Your task to perform on an android device: Find coffee shops on Maps Image 0: 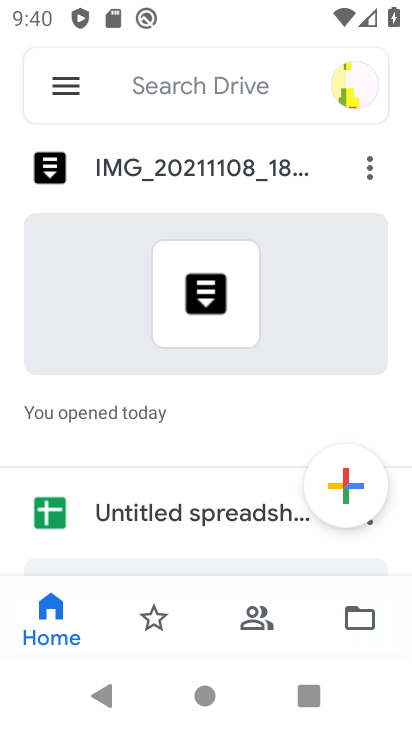
Step 0: press home button
Your task to perform on an android device: Find coffee shops on Maps Image 1: 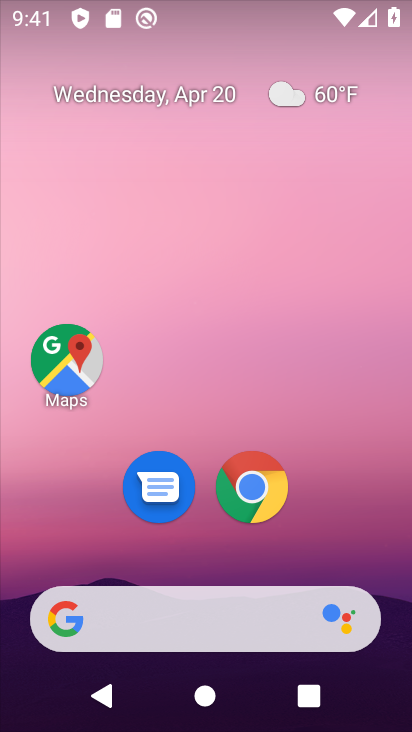
Step 1: click (50, 353)
Your task to perform on an android device: Find coffee shops on Maps Image 2: 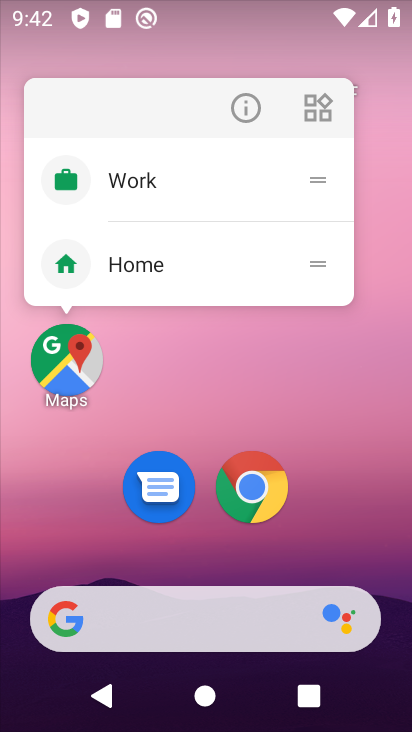
Step 2: click (234, 107)
Your task to perform on an android device: Find coffee shops on Maps Image 3: 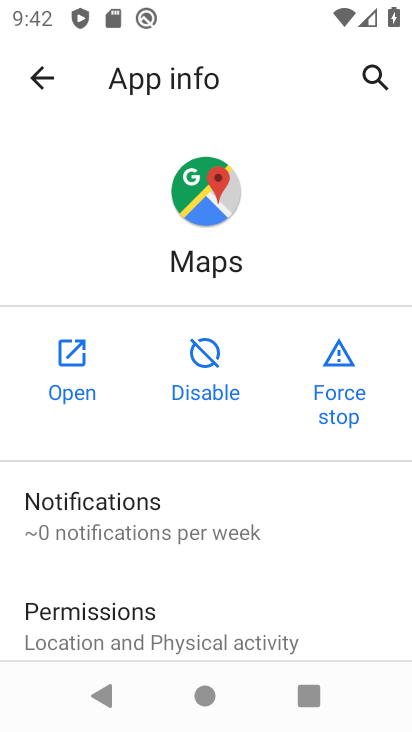
Step 3: click (25, 209)
Your task to perform on an android device: Find coffee shops on Maps Image 4: 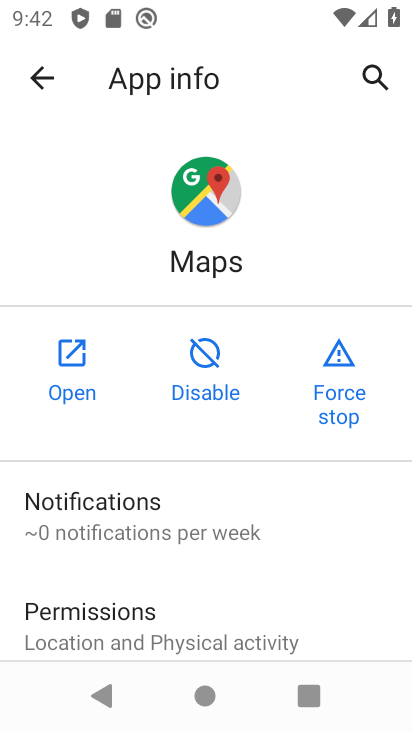
Step 4: click (60, 348)
Your task to perform on an android device: Find coffee shops on Maps Image 5: 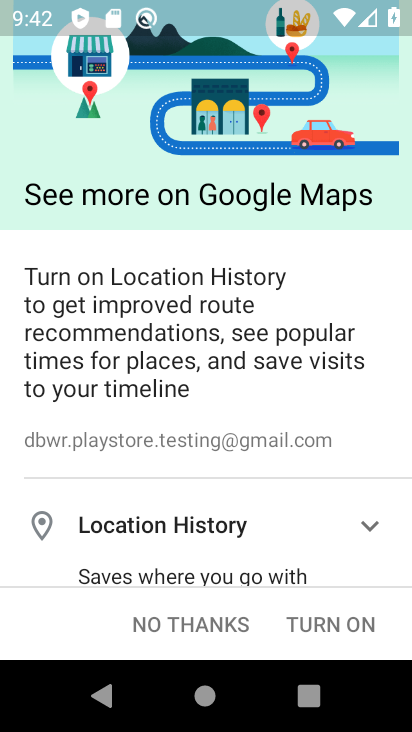
Step 5: click (207, 643)
Your task to perform on an android device: Find coffee shops on Maps Image 6: 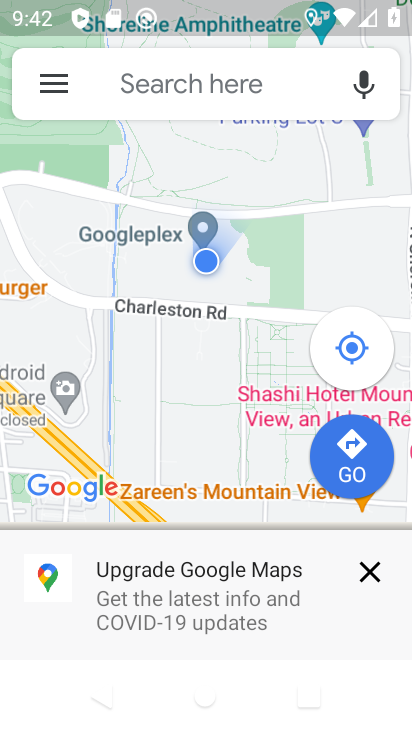
Step 6: click (166, 66)
Your task to perform on an android device: Find coffee shops on Maps Image 7: 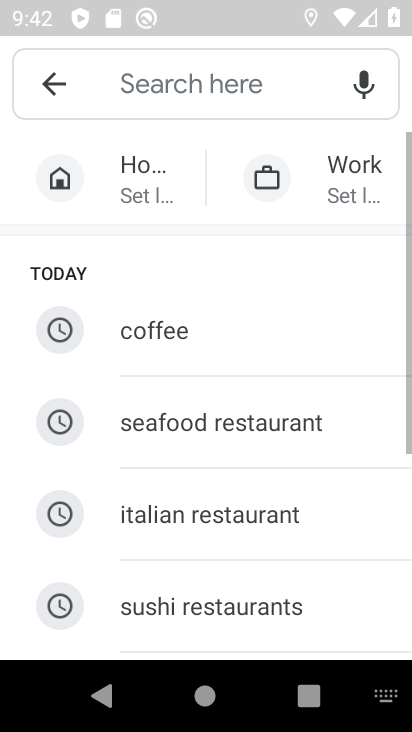
Step 7: click (163, 330)
Your task to perform on an android device: Find coffee shops on Maps Image 8: 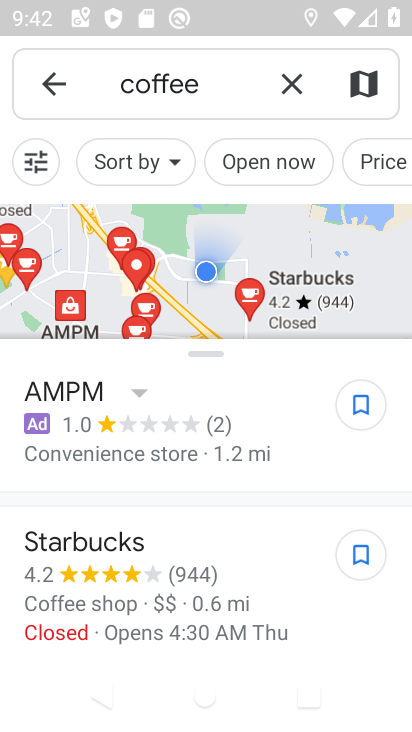
Step 8: task complete